Your task to perform on an android device: Go to accessibility settings Image 0: 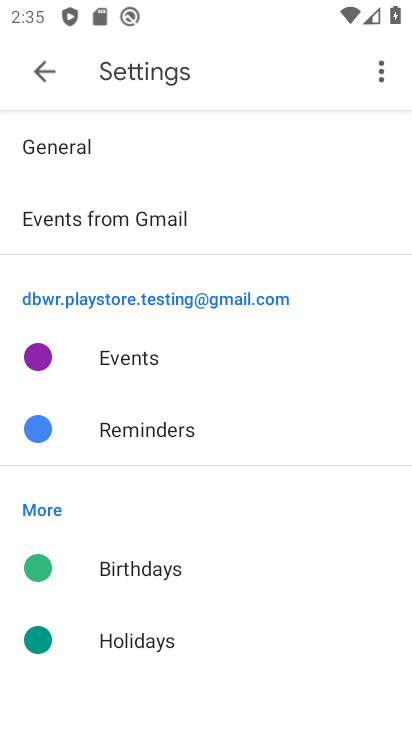
Step 0: press home button
Your task to perform on an android device: Go to accessibility settings Image 1: 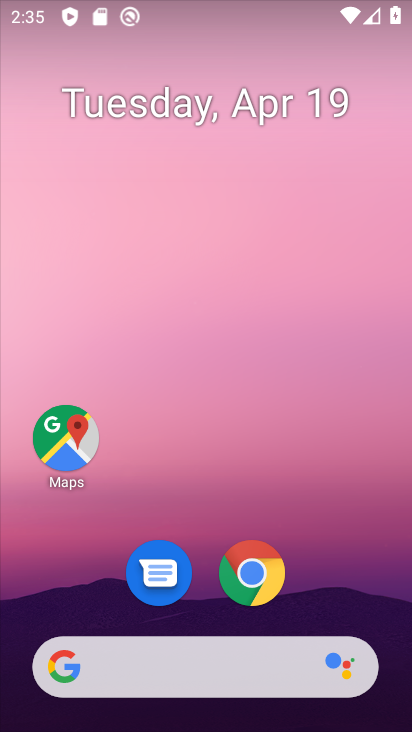
Step 1: drag from (328, 466) to (322, 99)
Your task to perform on an android device: Go to accessibility settings Image 2: 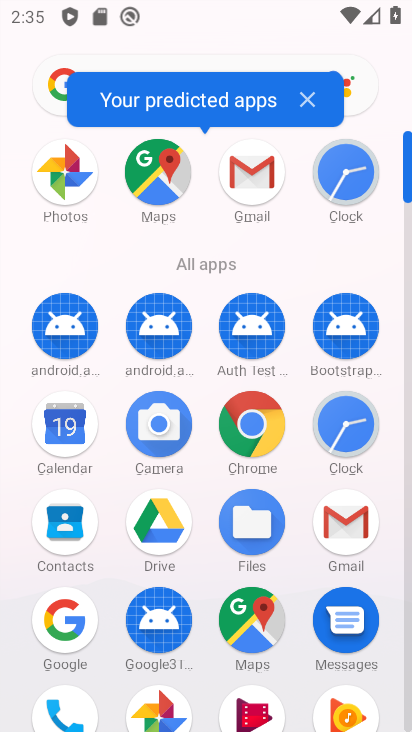
Step 2: drag from (302, 288) to (300, 32)
Your task to perform on an android device: Go to accessibility settings Image 3: 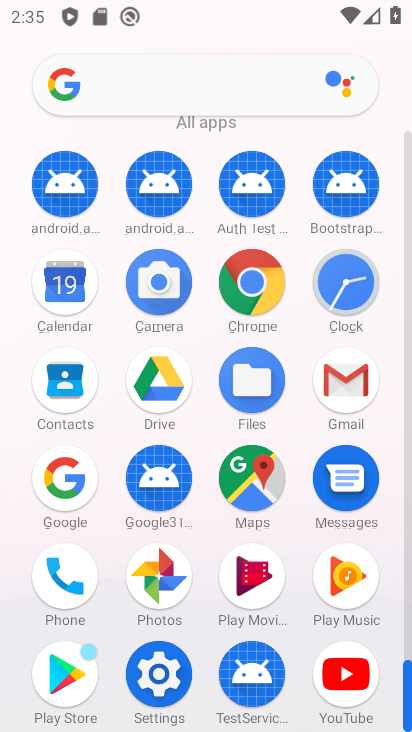
Step 3: click (165, 665)
Your task to perform on an android device: Go to accessibility settings Image 4: 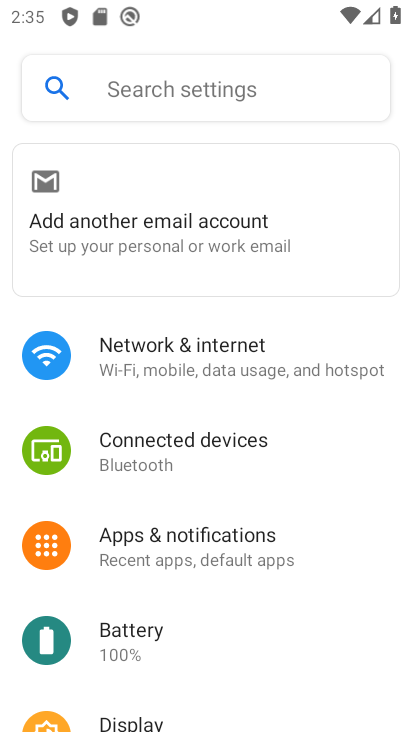
Step 4: drag from (343, 636) to (307, 212)
Your task to perform on an android device: Go to accessibility settings Image 5: 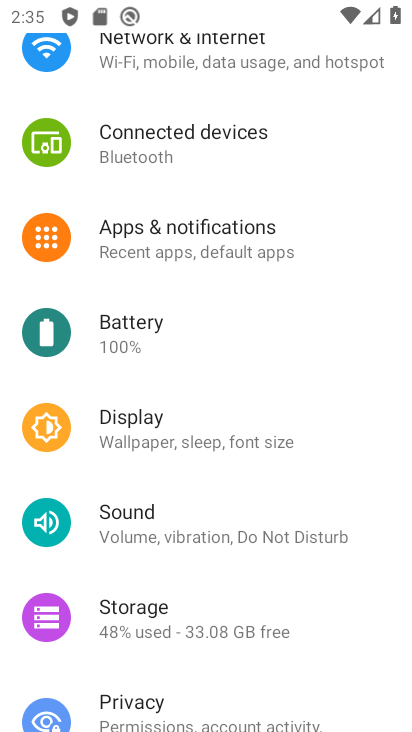
Step 5: drag from (308, 651) to (313, 316)
Your task to perform on an android device: Go to accessibility settings Image 6: 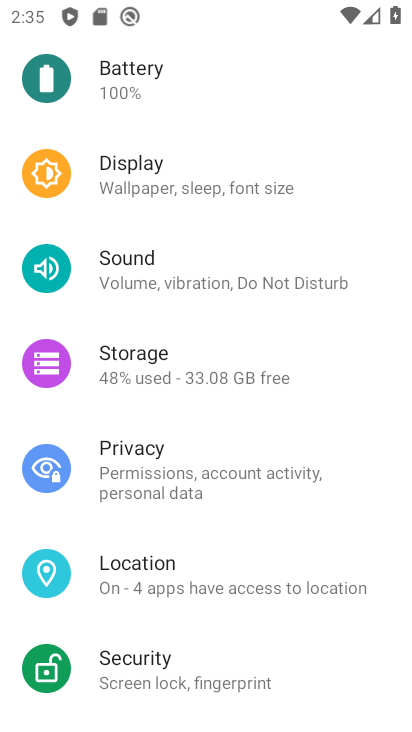
Step 6: drag from (310, 656) to (323, 235)
Your task to perform on an android device: Go to accessibility settings Image 7: 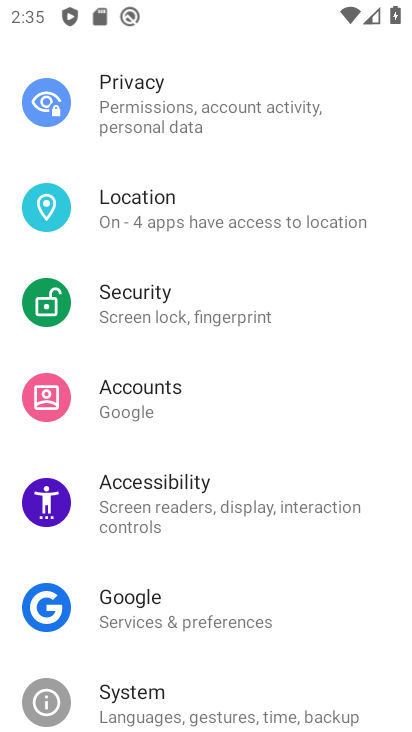
Step 7: click (181, 486)
Your task to perform on an android device: Go to accessibility settings Image 8: 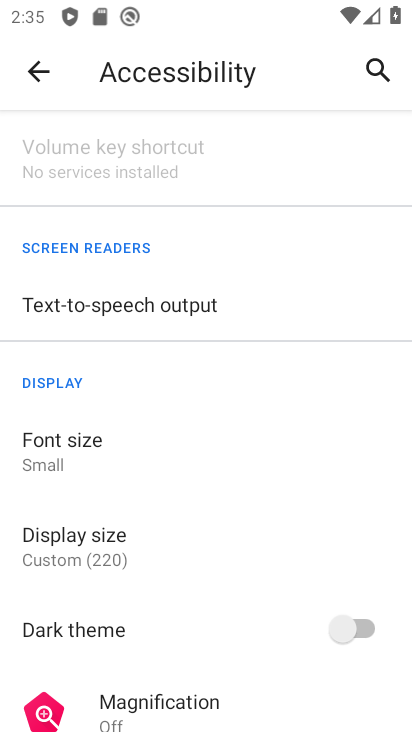
Step 8: task complete